Your task to perform on an android device: open a bookmark in the chrome app Image 0: 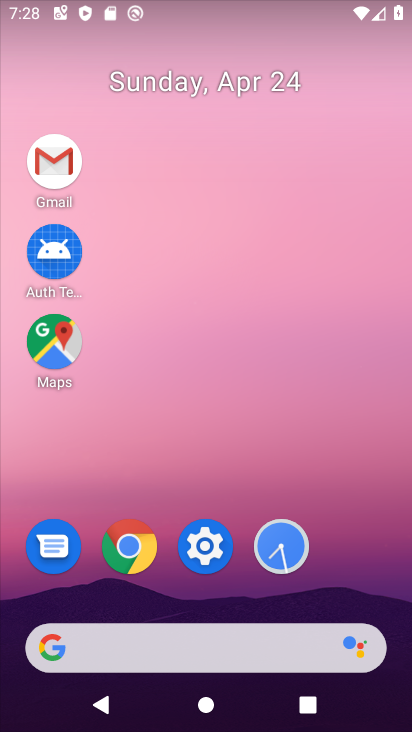
Step 0: click (124, 547)
Your task to perform on an android device: open a bookmark in the chrome app Image 1: 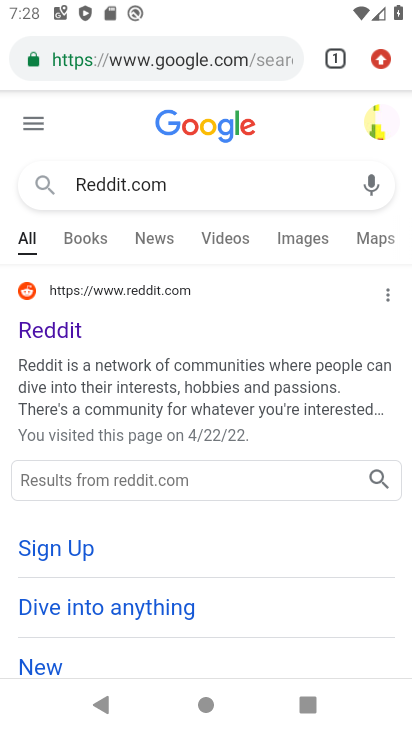
Step 1: click (378, 58)
Your task to perform on an android device: open a bookmark in the chrome app Image 2: 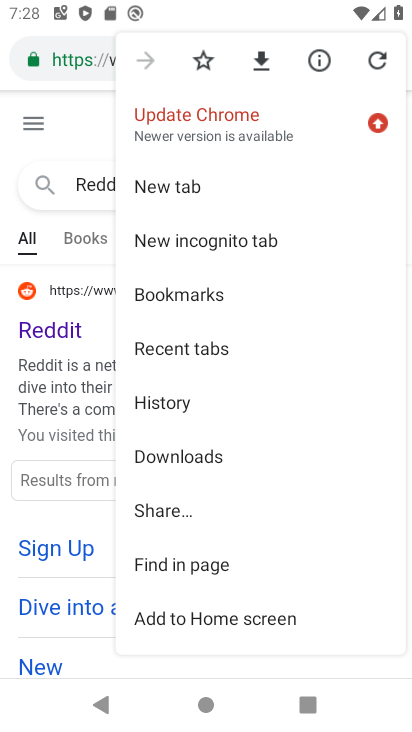
Step 2: click (190, 294)
Your task to perform on an android device: open a bookmark in the chrome app Image 3: 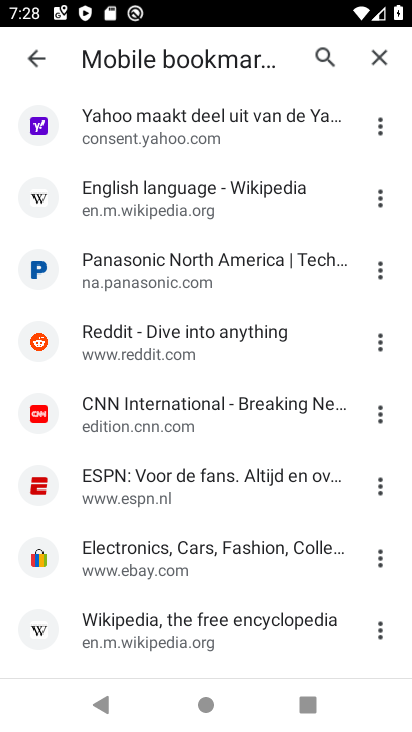
Step 3: task complete